Your task to perform on an android device: turn off picture-in-picture Image 0: 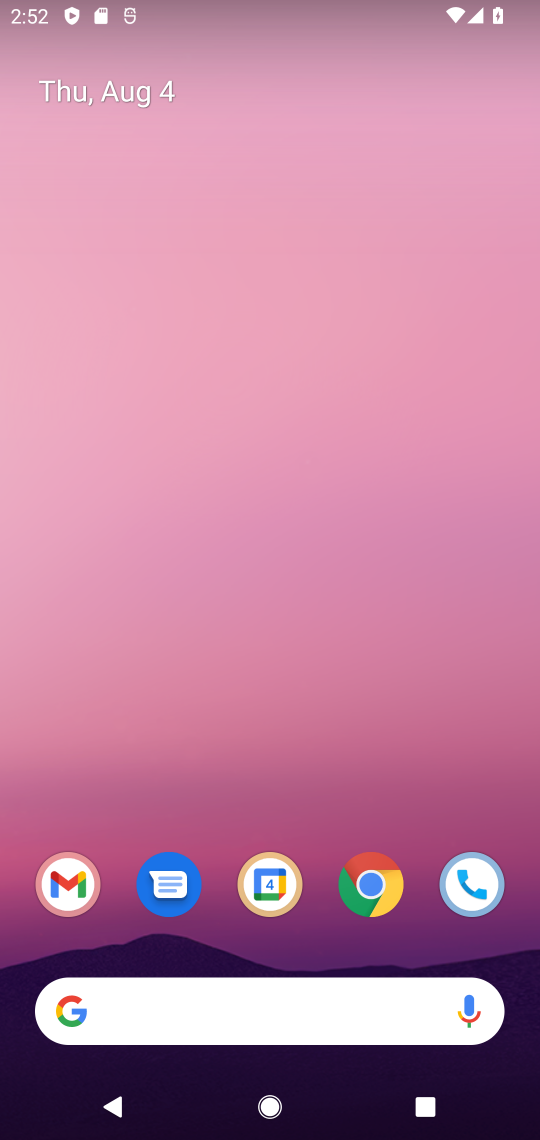
Step 0: drag from (218, 781) to (216, 366)
Your task to perform on an android device: turn off picture-in-picture Image 1: 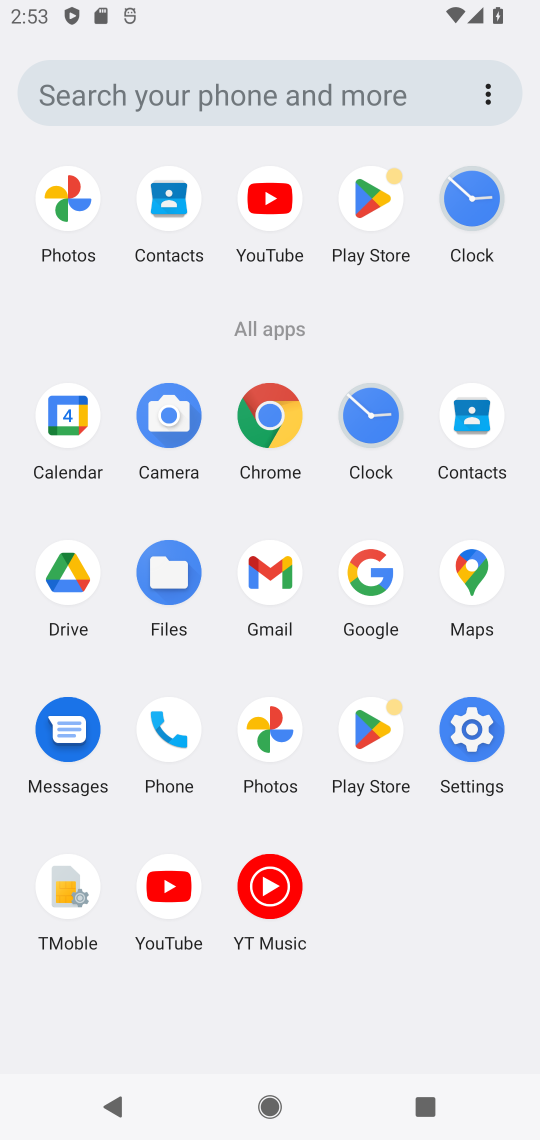
Step 1: click (468, 746)
Your task to perform on an android device: turn off picture-in-picture Image 2: 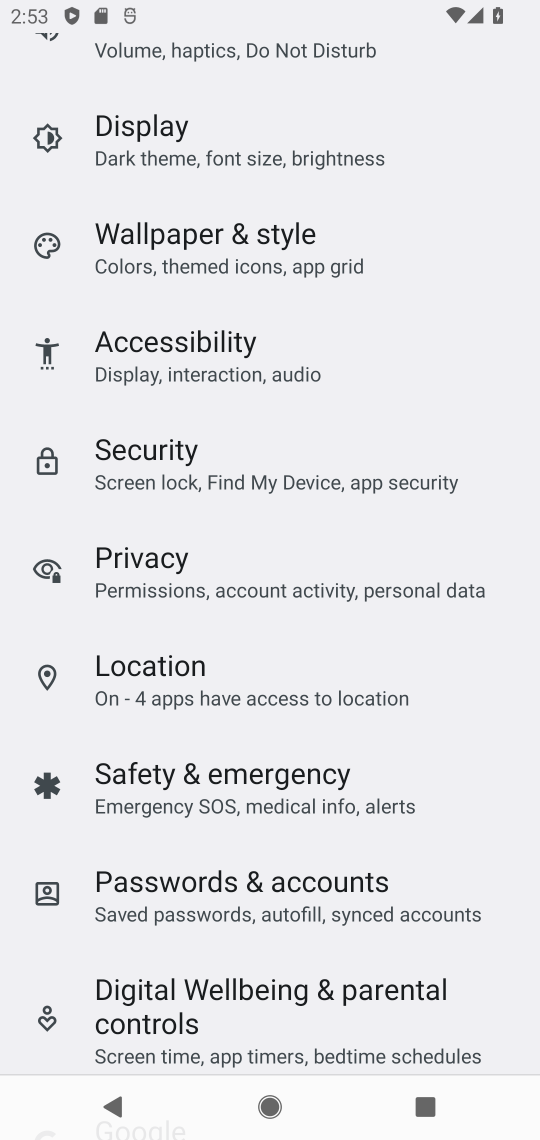
Step 2: drag from (217, 228) to (213, 970)
Your task to perform on an android device: turn off picture-in-picture Image 3: 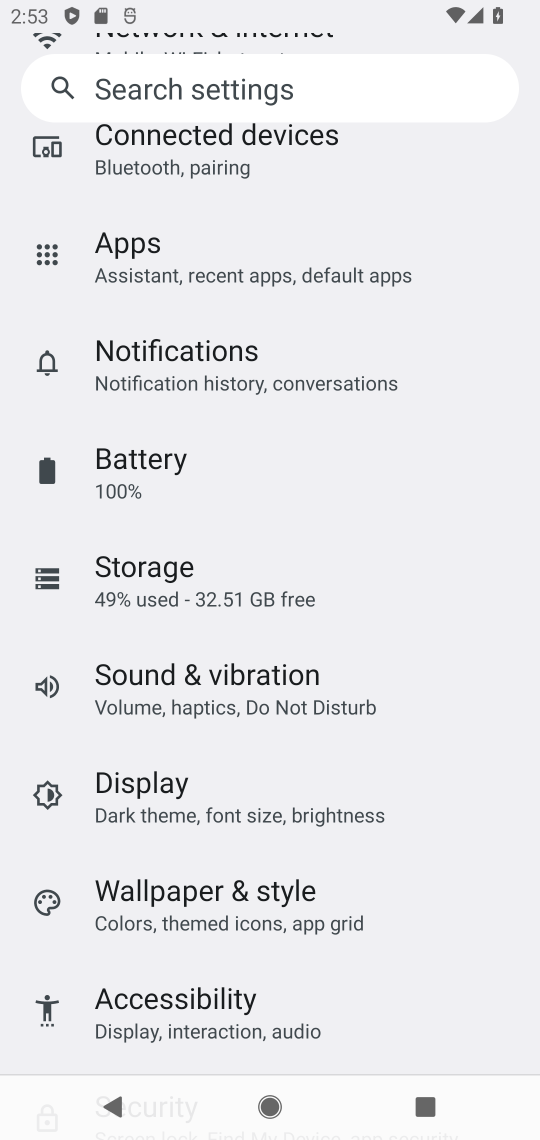
Step 3: drag from (233, 358) to (218, 960)
Your task to perform on an android device: turn off picture-in-picture Image 4: 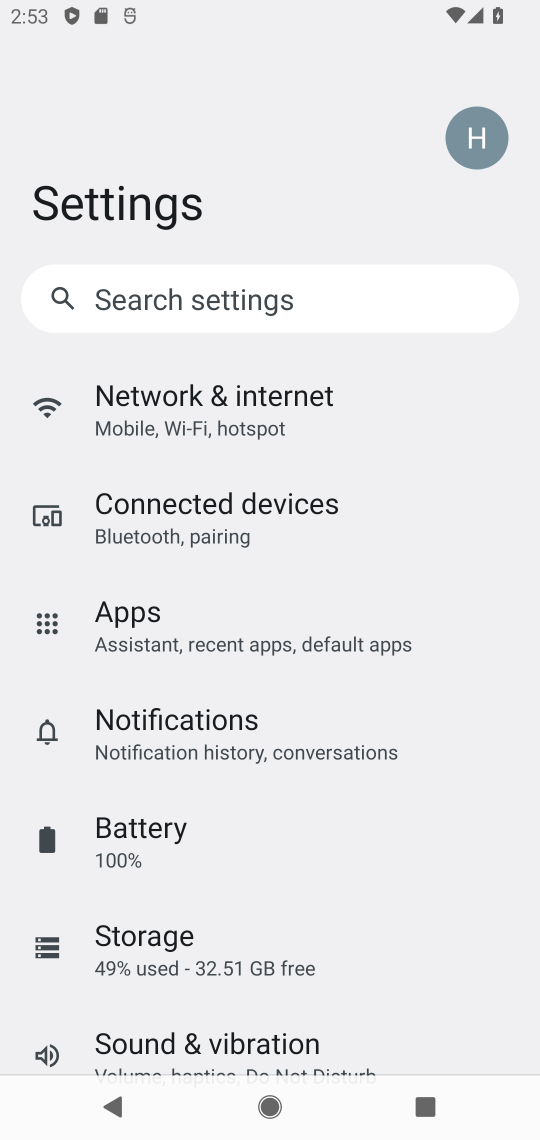
Step 4: click (178, 710)
Your task to perform on an android device: turn off picture-in-picture Image 5: 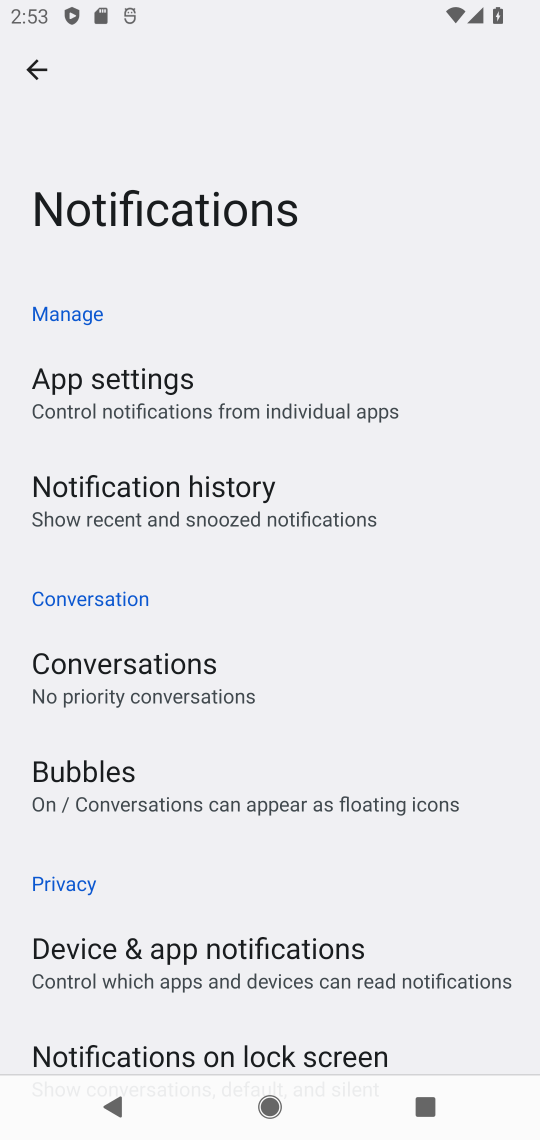
Step 5: drag from (285, 952) to (311, 572)
Your task to perform on an android device: turn off picture-in-picture Image 6: 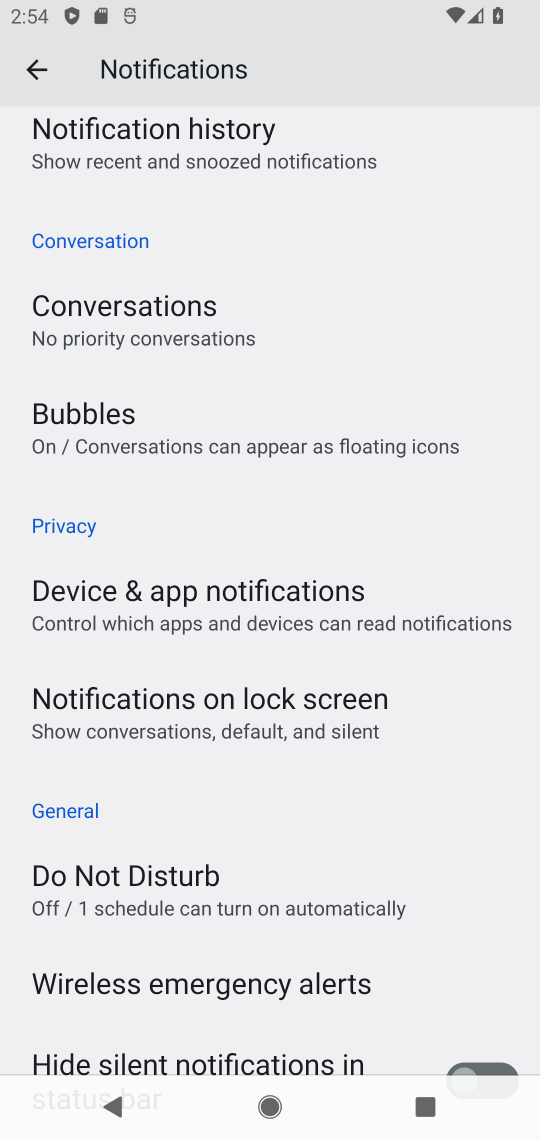
Step 6: drag from (227, 217) to (317, 307)
Your task to perform on an android device: turn off picture-in-picture Image 7: 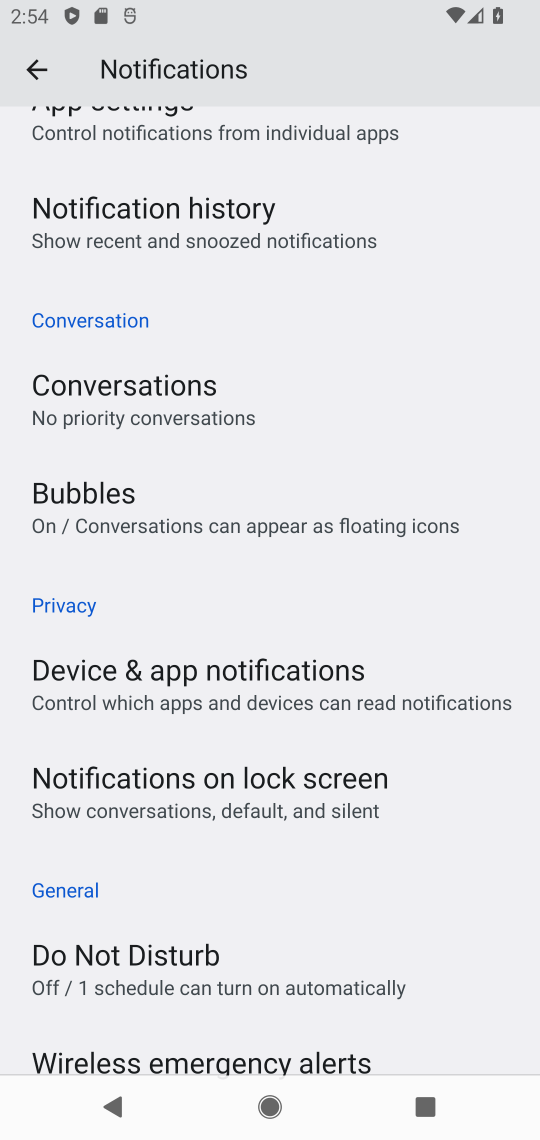
Step 7: click (28, 69)
Your task to perform on an android device: turn off picture-in-picture Image 8: 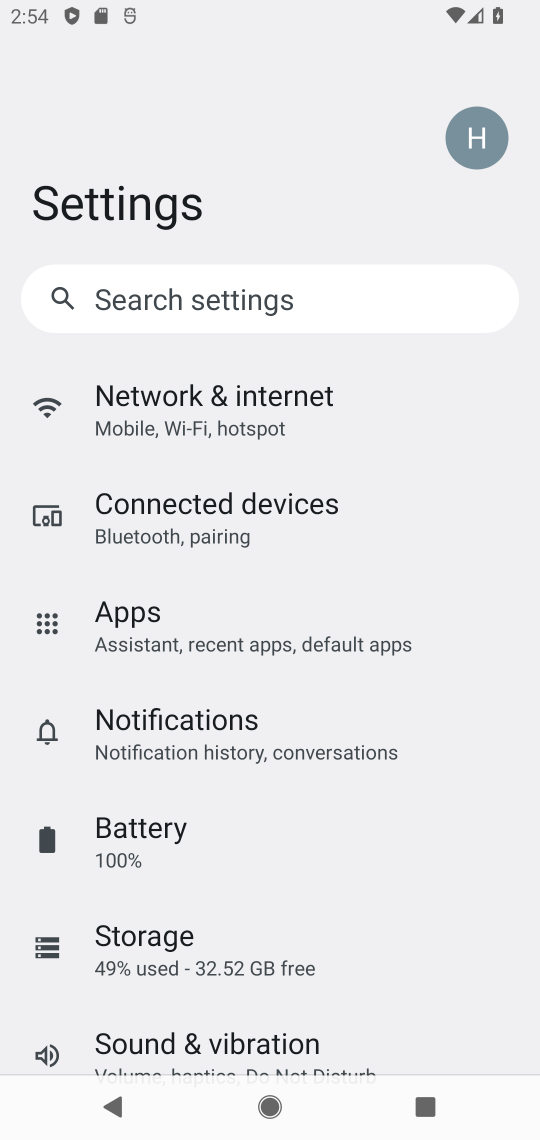
Step 8: click (239, 740)
Your task to perform on an android device: turn off picture-in-picture Image 9: 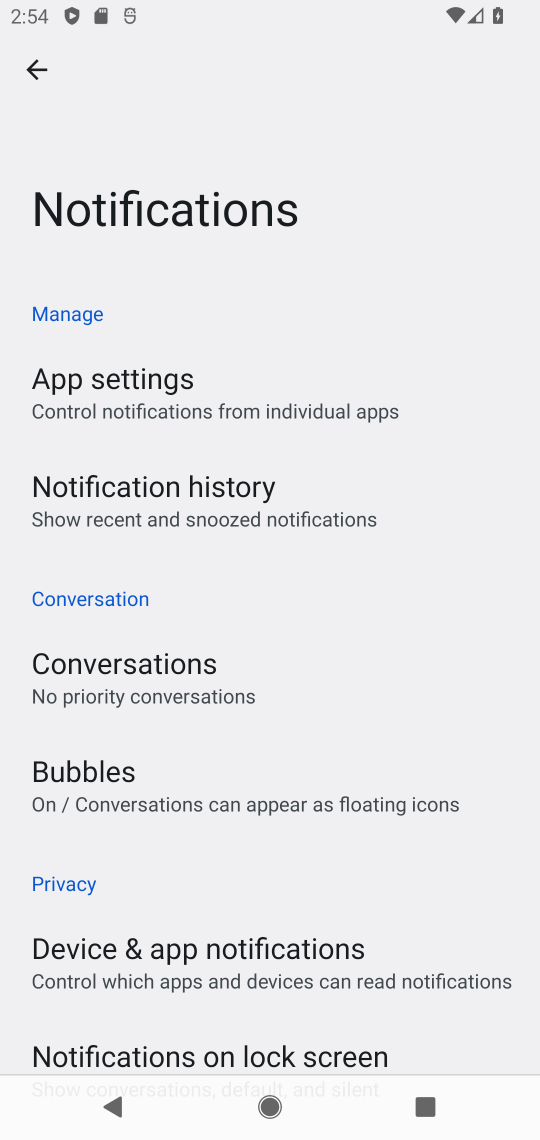
Step 9: drag from (191, 988) to (247, 653)
Your task to perform on an android device: turn off picture-in-picture Image 10: 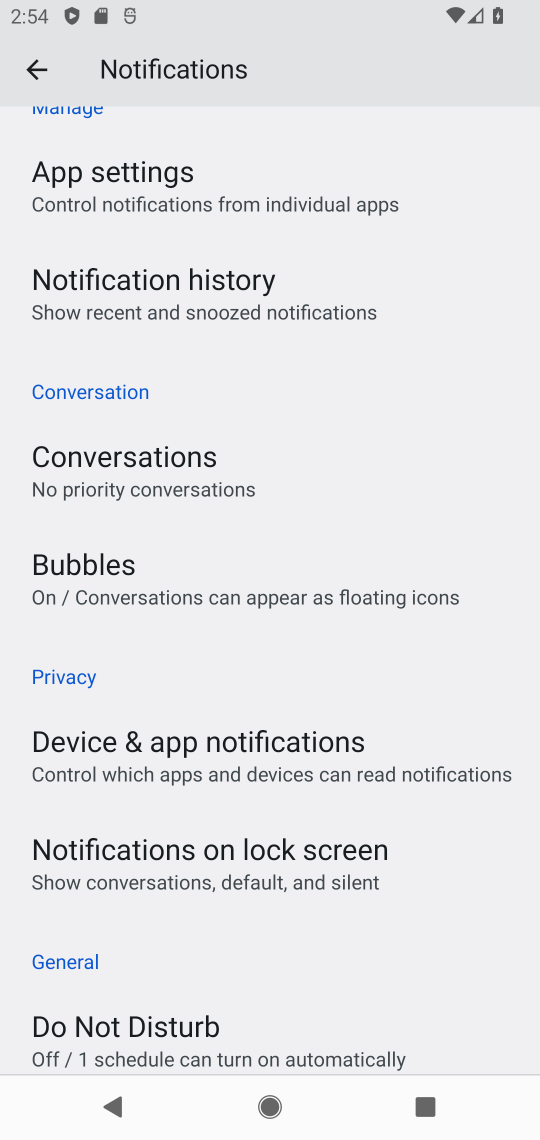
Step 10: drag from (236, 966) to (375, 494)
Your task to perform on an android device: turn off picture-in-picture Image 11: 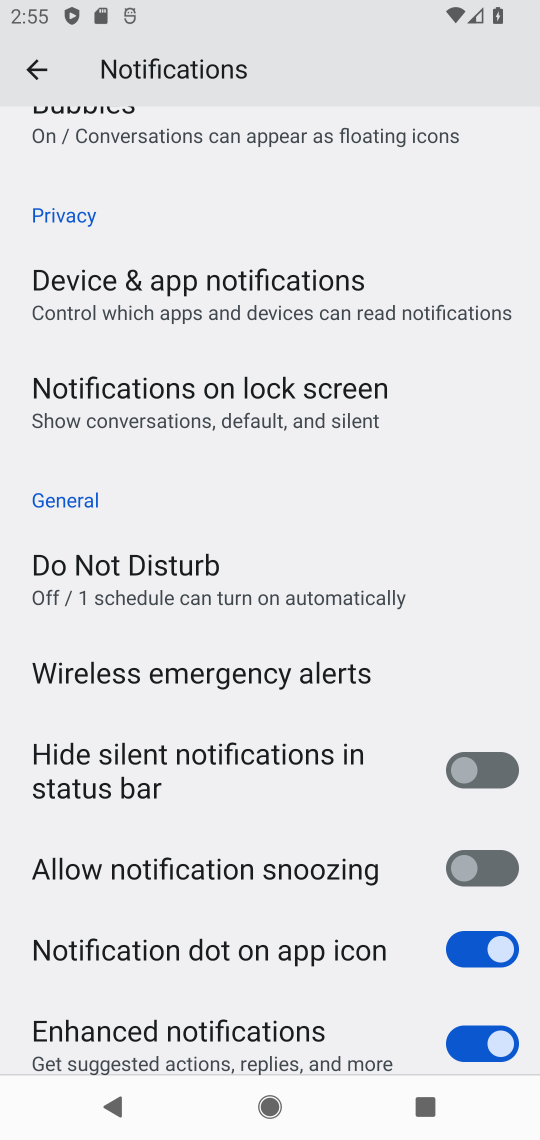
Step 11: drag from (219, 805) to (317, 732)
Your task to perform on an android device: turn off picture-in-picture Image 12: 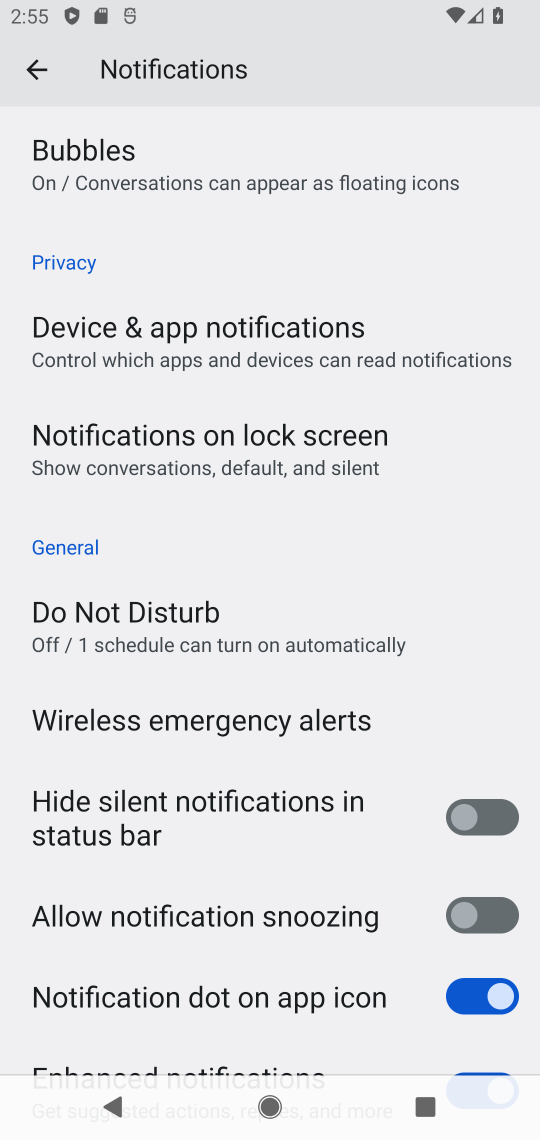
Step 12: click (171, 472)
Your task to perform on an android device: turn off picture-in-picture Image 13: 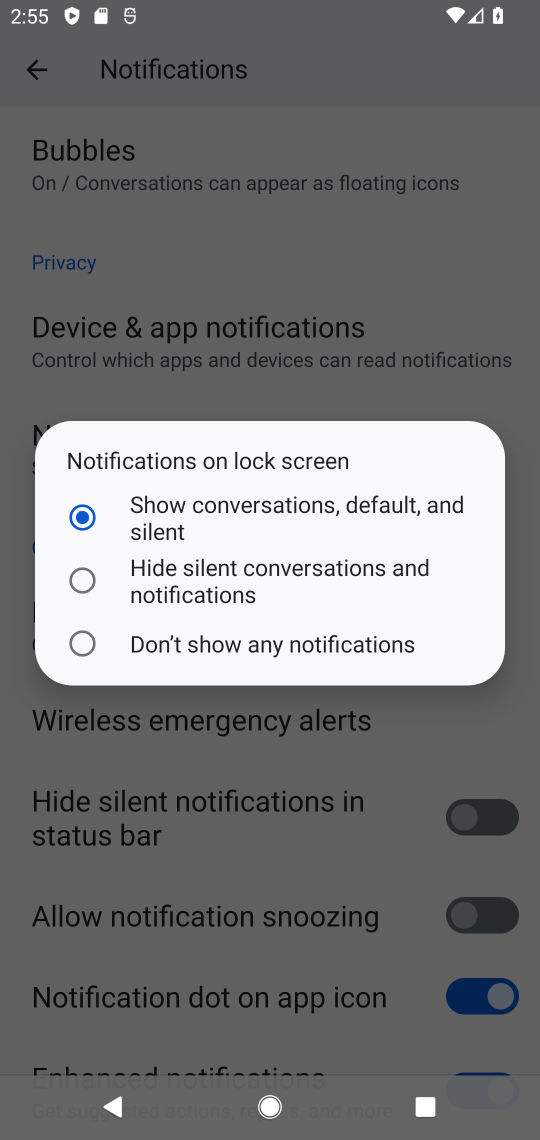
Step 13: click (273, 334)
Your task to perform on an android device: turn off picture-in-picture Image 14: 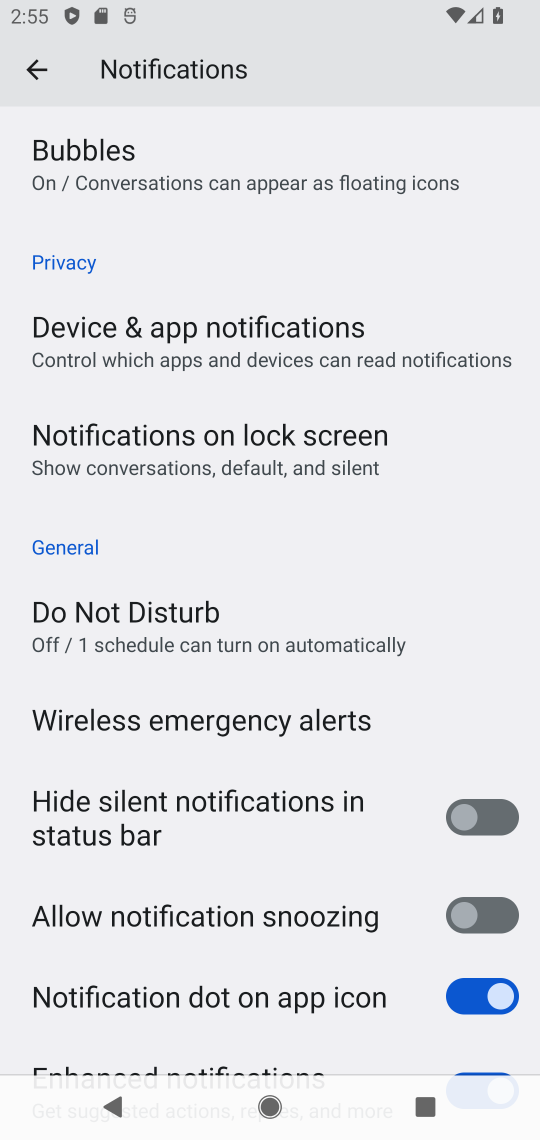
Step 14: click (57, 76)
Your task to perform on an android device: turn off picture-in-picture Image 15: 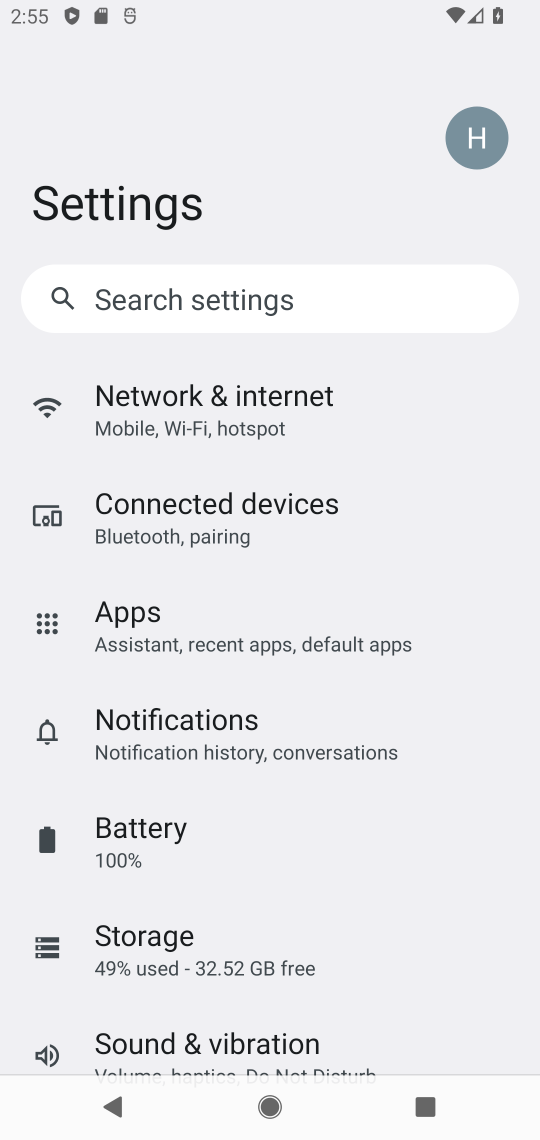
Step 15: click (173, 579)
Your task to perform on an android device: turn off picture-in-picture Image 16: 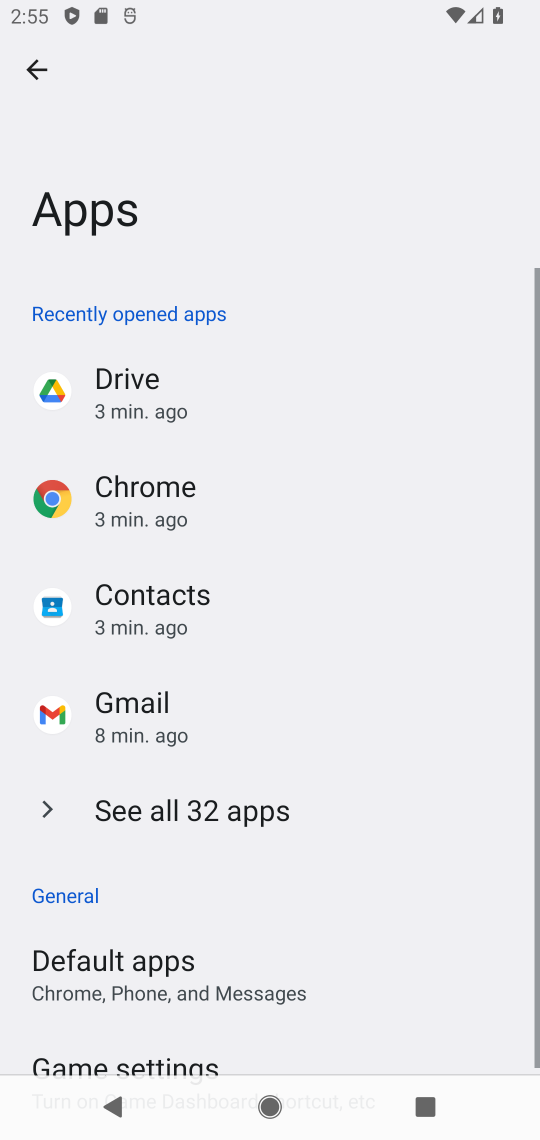
Step 16: drag from (205, 809) to (287, 178)
Your task to perform on an android device: turn off picture-in-picture Image 17: 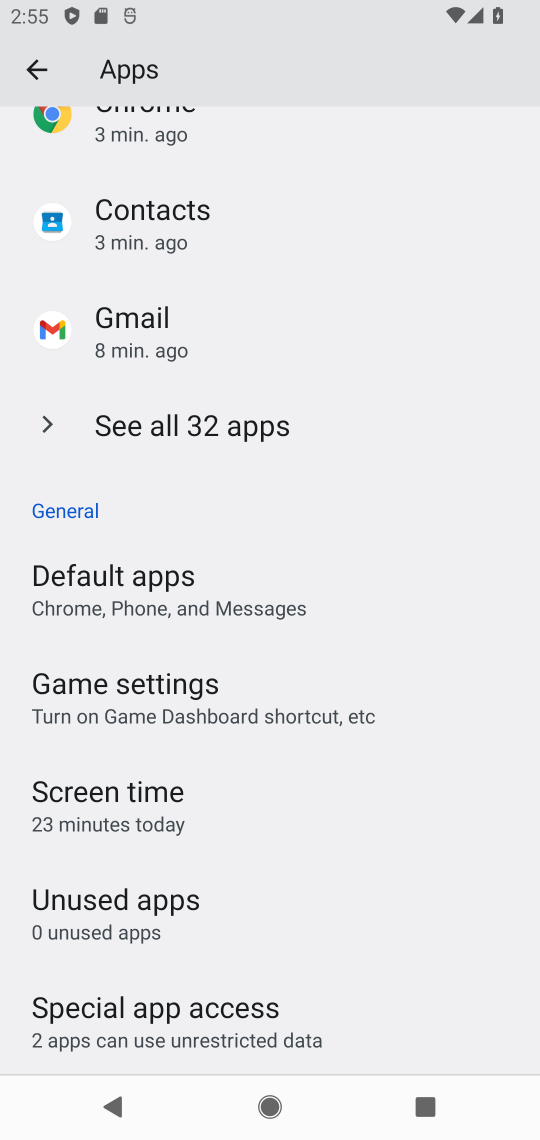
Step 17: click (180, 1034)
Your task to perform on an android device: turn off picture-in-picture Image 18: 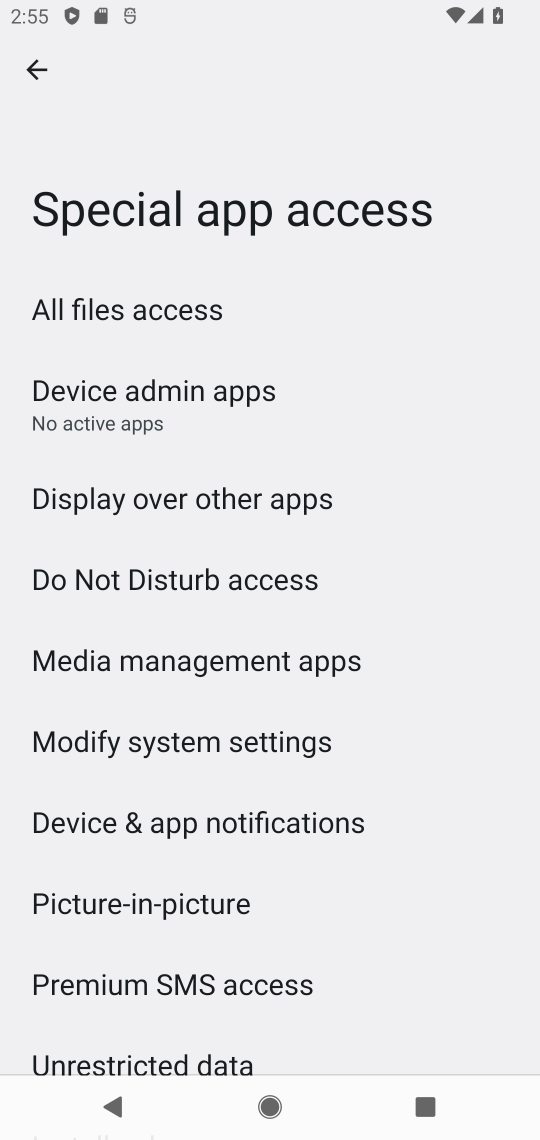
Step 18: click (100, 900)
Your task to perform on an android device: turn off picture-in-picture Image 19: 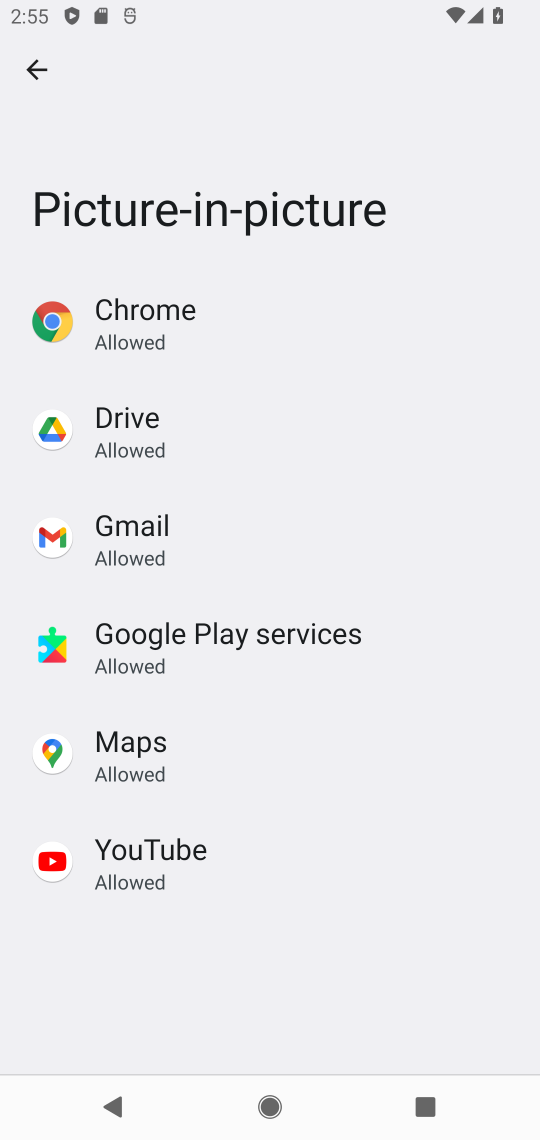
Step 19: click (148, 842)
Your task to perform on an android device: turn off picture-in-picture Image 20: 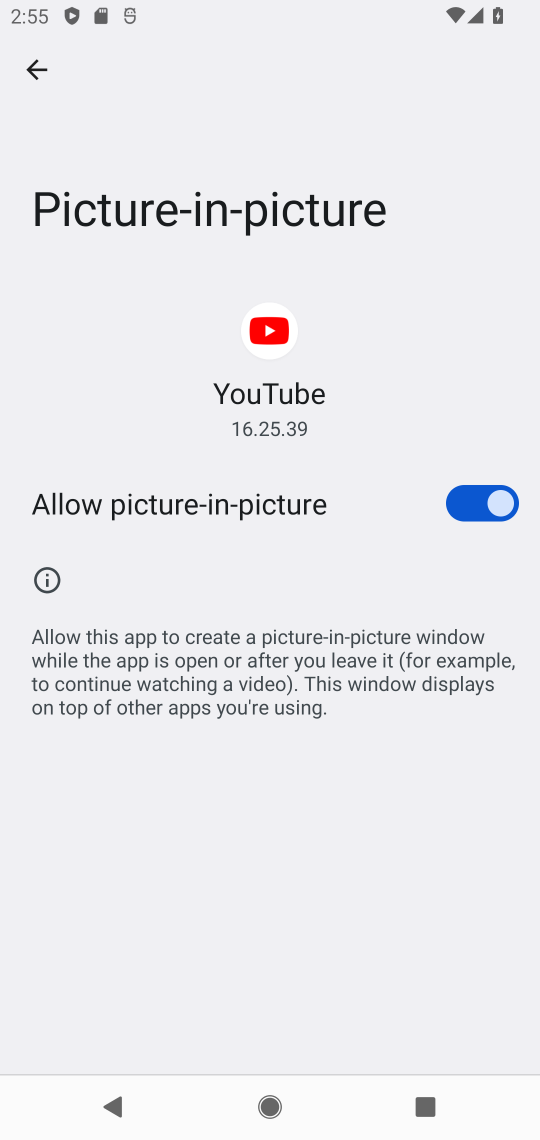
Step 20: click (459, 484)
Your task to perform on an android device: turn off picture-in-picture Image 21: 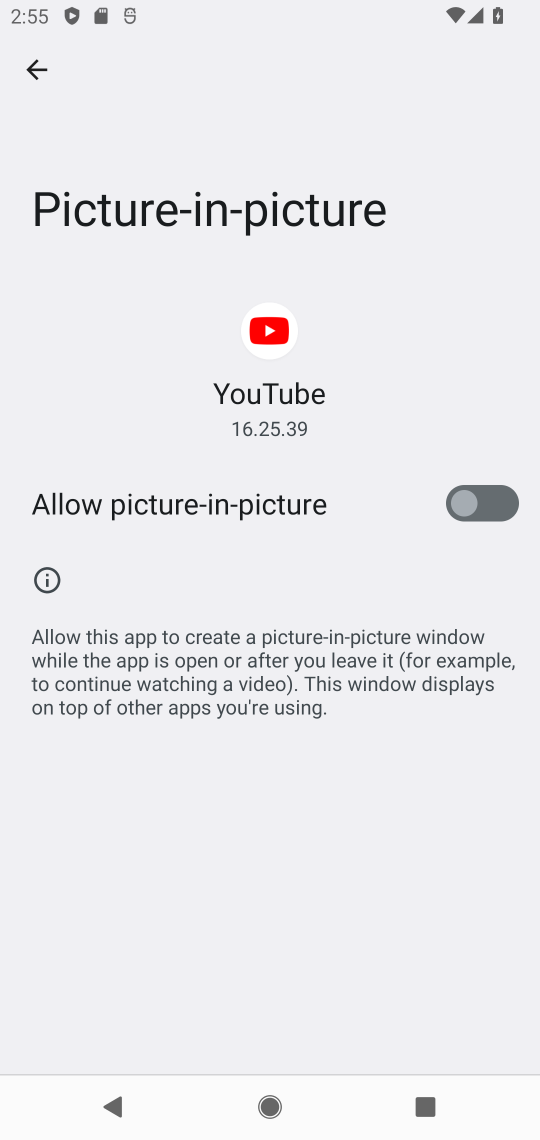
Step 21: task complete